Your task to perform on an android device: set default search engine in the chrome app Image 0: 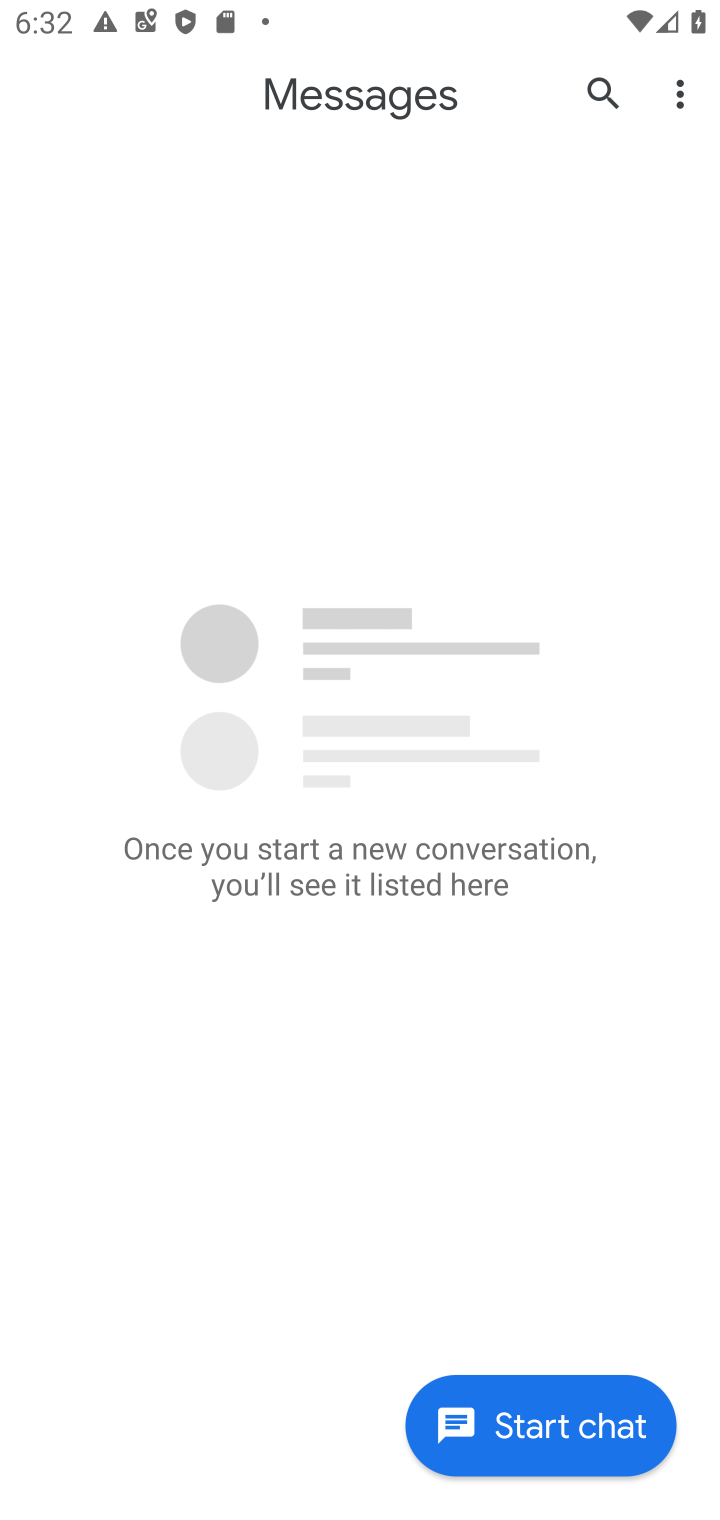
Step 0: press home button
Your task to perform on an android device: set default search engine in the chrome app Image 1: 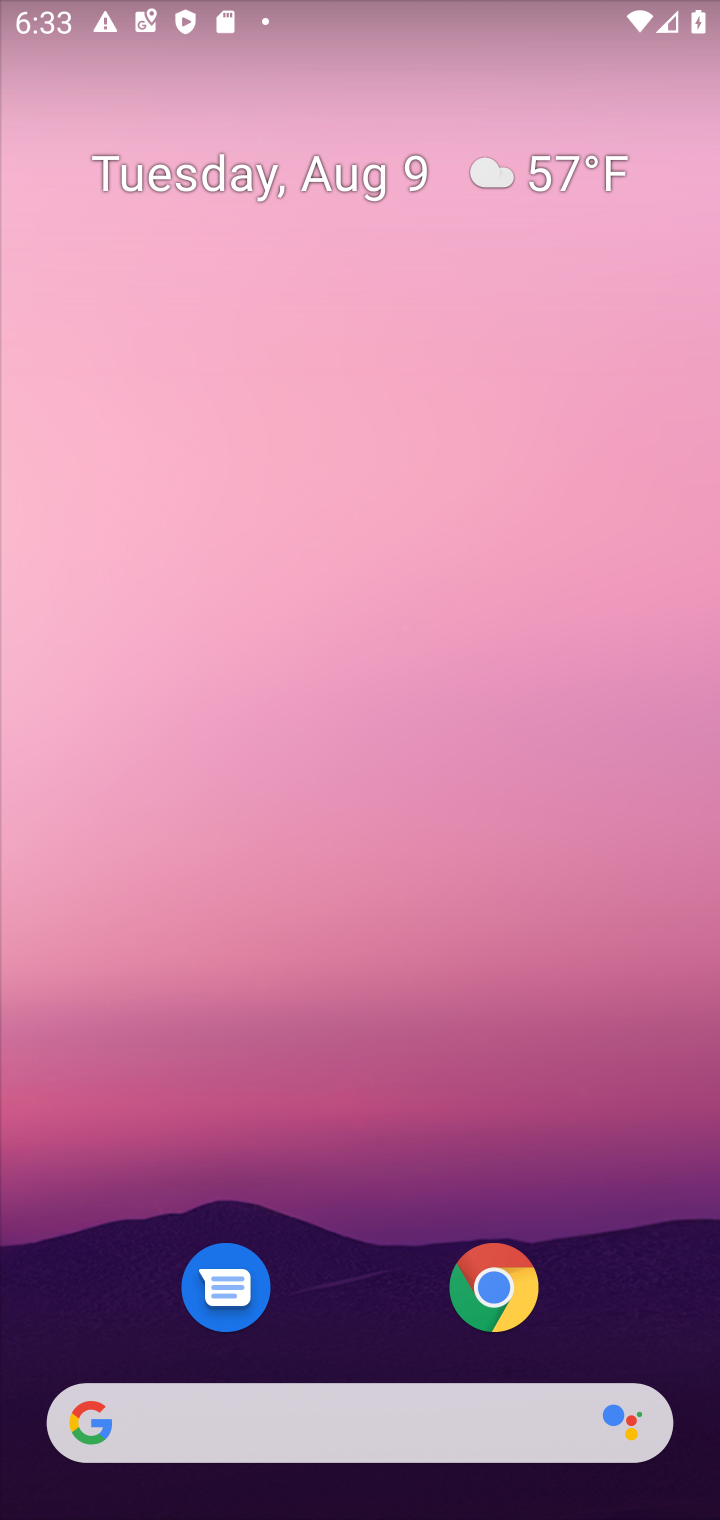
Step 1: drag from (390, 1033) to (389, 473)
Your task to perform on an android device: set default search engine in the chrome app Image 2: 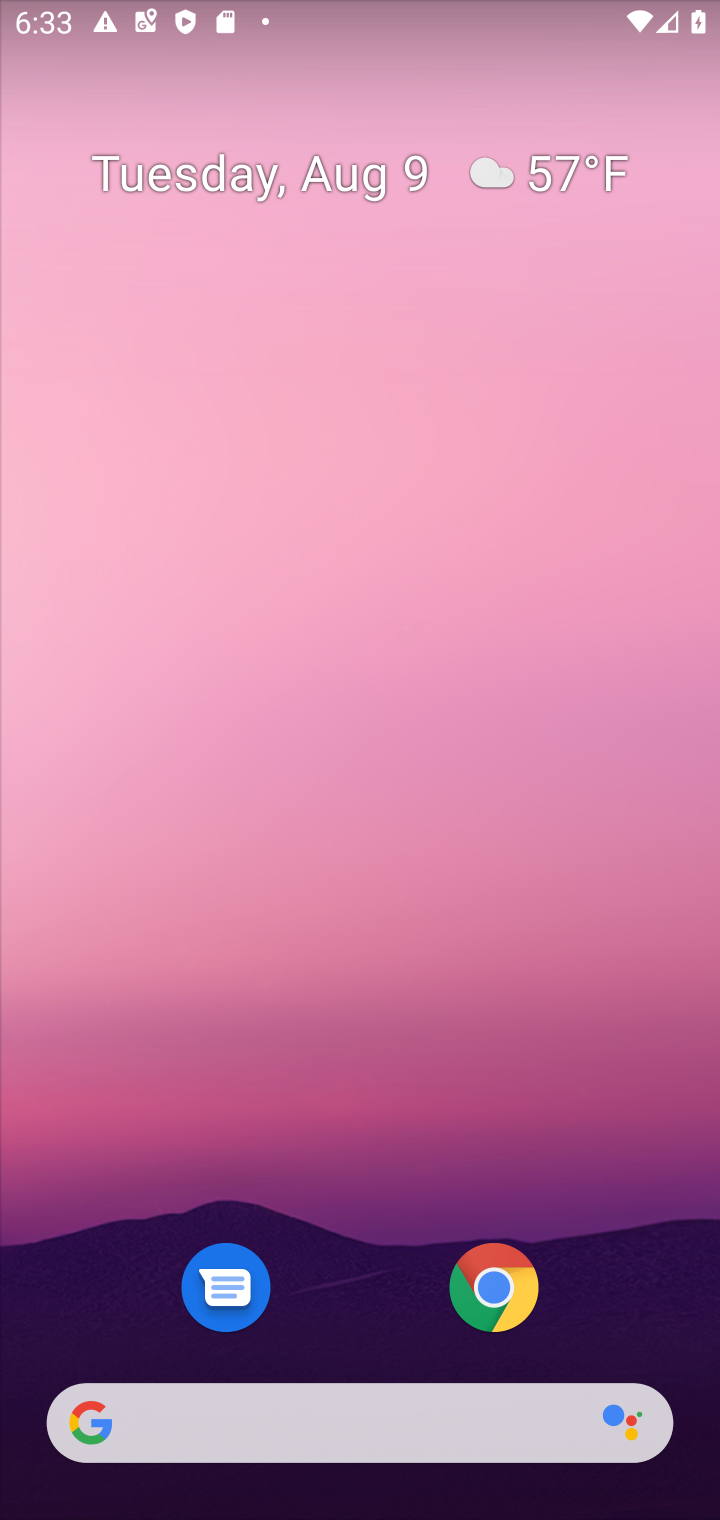
Step 2: drag from (422, 1096) to (428, 11)
Your task to perform on an android device: set default search engine in the chrome app Image 3: 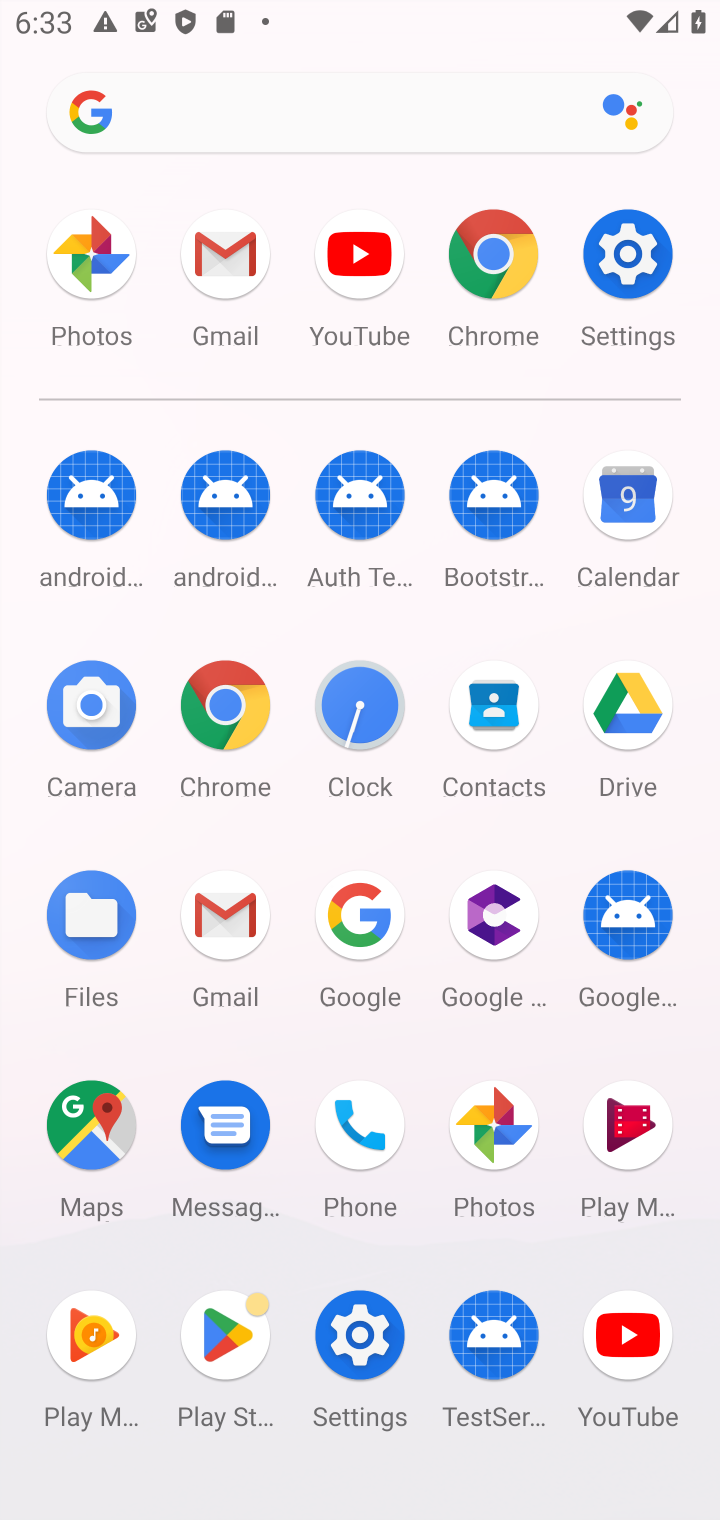
Step 3: click (497, 271)
Your task to perform on an android device: set default search engine in the chrome app Image 4: 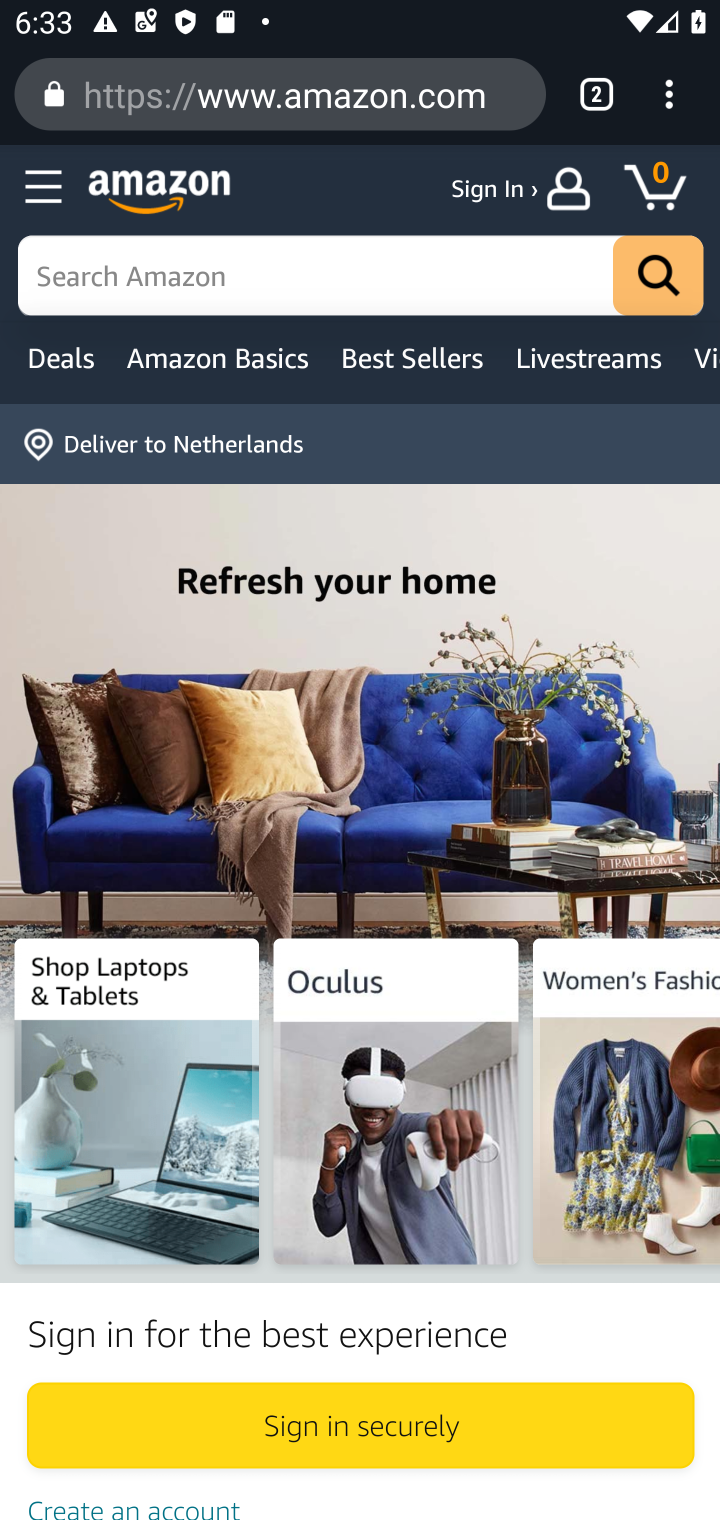
Step 4: task complete